Your task to perform on an android device: open the mobile data screen to see how much data has been used Image 0: 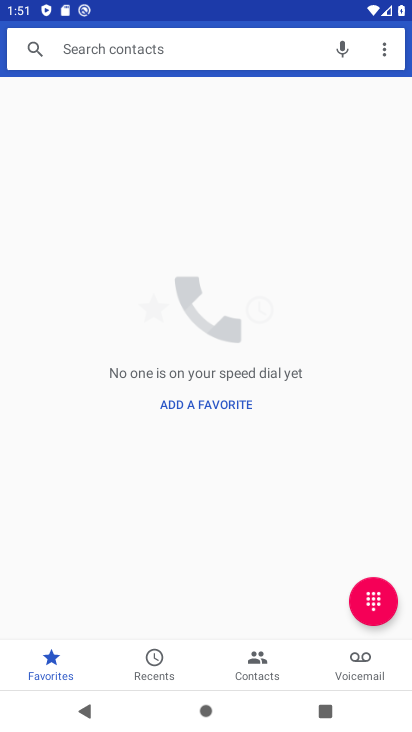
Step 0: press home button
Your task to perform on an android device: open the mobile data screen to see how much data has been used Image 1: 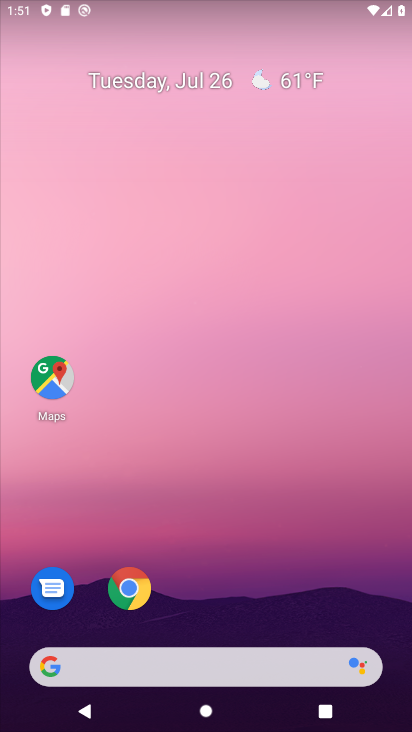
Step 1: drag from (263, 506) to (367, 34)
Your task to perform on an android device: open the mobile data screen to see how much data has been used Image 2: 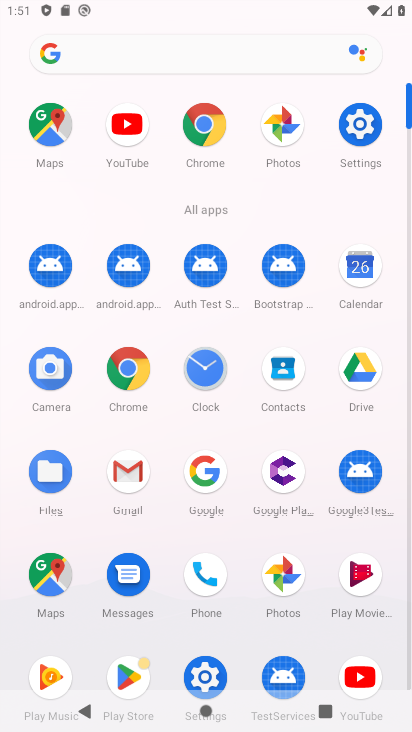
Step 2: click (344, 143)
Your task to perform on an android device: open the mobile data screen to see how much data has been used Image 3: 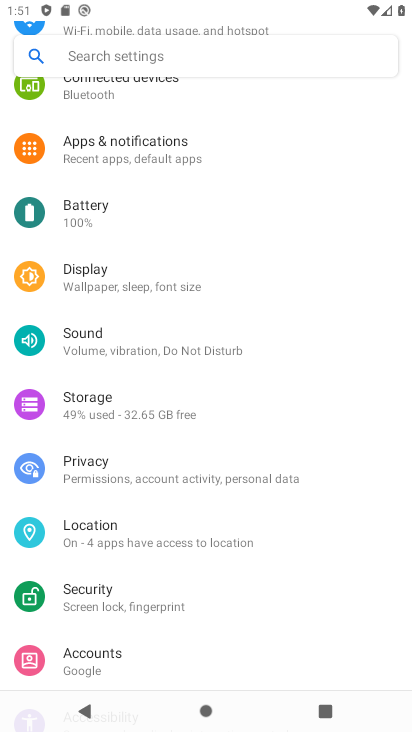
Step 3: drag from (212, 222) to (222, 695)
Your task to perform on an android device: open the mobile data screen to see how much data has been used Image 4: 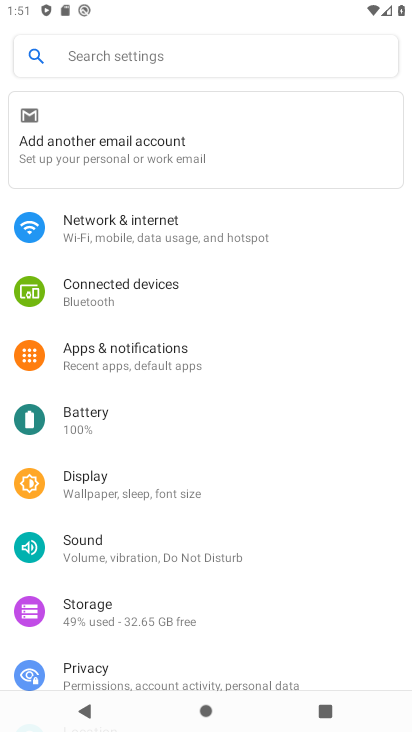
Step 4: click (127, 232)
Your task to perform on an android device: open the mobile data screen to see how much data has been used Image 5: 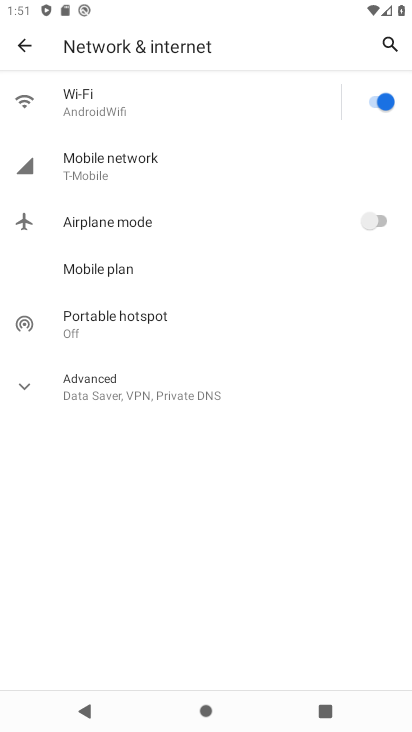
Step 5: click (82, 167)
Your task to perform on an android device: open the mobile data screen to see how much data has been used Image 6: 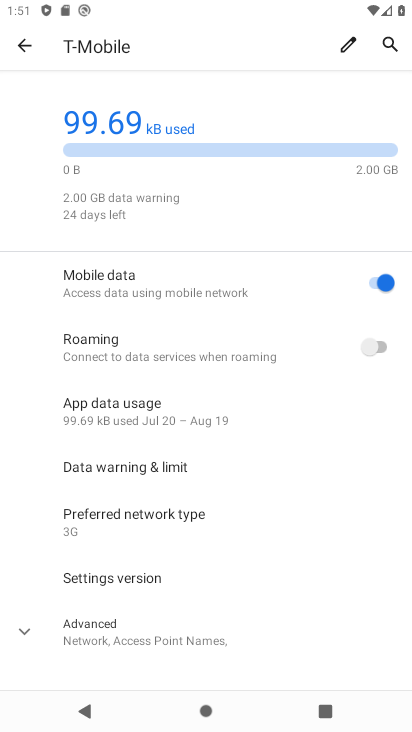
Step 6: task complete